Your task to perform on an android device: install app "LinkedIn" Image 0: 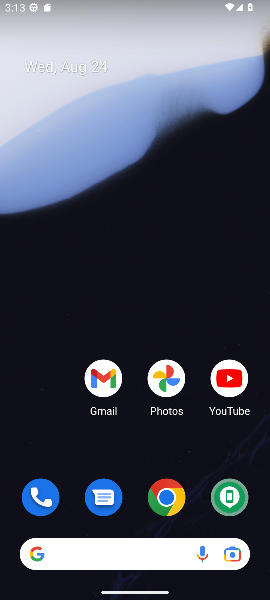
Step 0: drag from (100, 553) to (148, 160)
Your task to perform on an android device: install app "LinkedIn" Image 1: 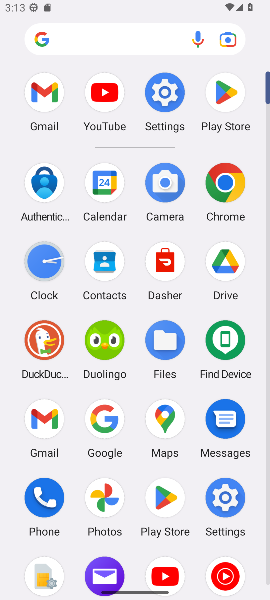
Step 1: click (226, 93)
Your task to perform on an android device: install app "LinkedIn" Image 2: 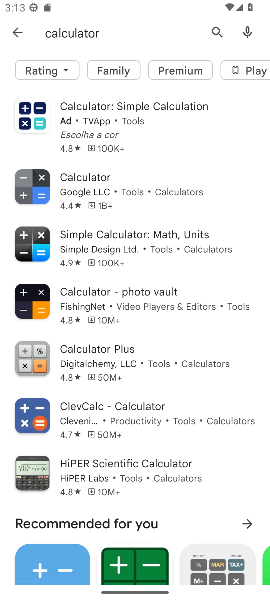
Step 2: press back button
Your task to perform on an android device: install app "LinkedIn" Image 3: 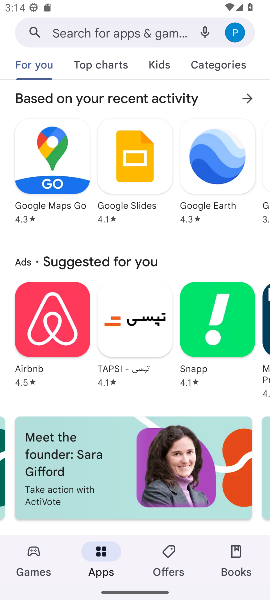
Step 3: click (110, 33)
Your task to perform on an android device: install app "LinkedIn" Image 4: 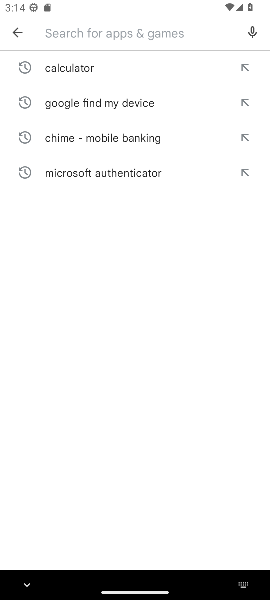
Step 4: type "LinkedIn"
Your task to perform on an android device: install app "LinkedIn" Image 5: 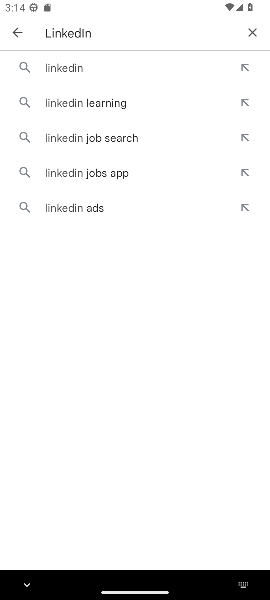
Step 5: click (71, 69)
Your task to perform on an android device: install app "LinkedIn" Image 6: 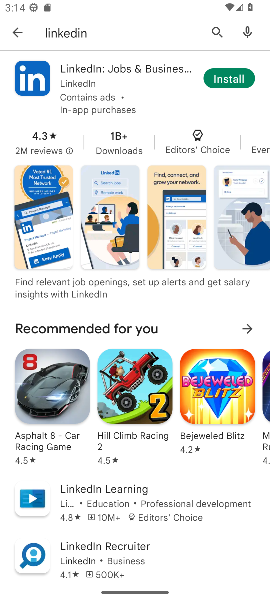
Step 6: click (235, 88)
Your task to perform on an android device: install app "LinkedIn" Image 7: 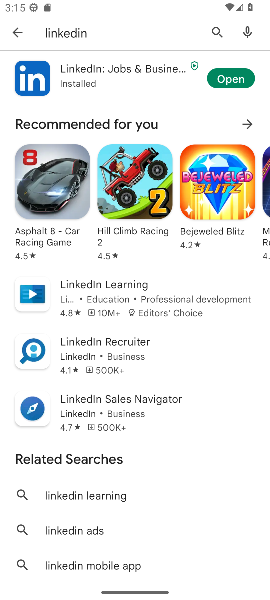
Step 7: task complete